Your task to perform on an android device: open chrome and create a bookmark for the current page Image 0: 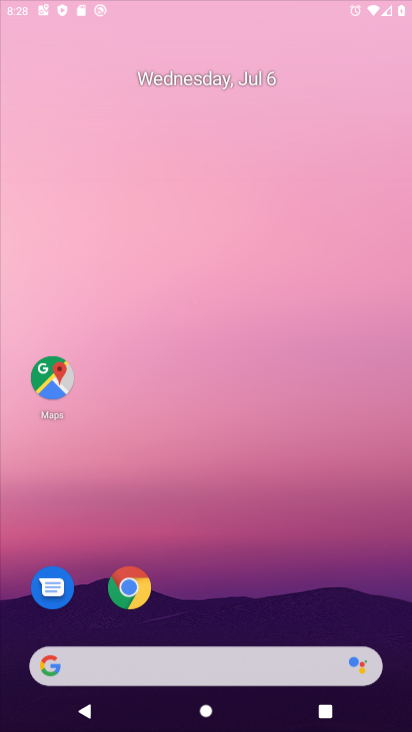
Step 0: click (272, 162)
Your task to perform on an android device: open chrome and create a bookmark for the current page Image 1: 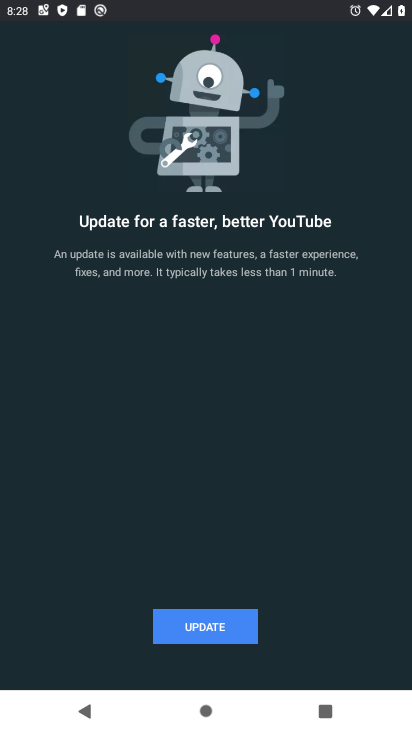
Step 1: press home button
Your task to perform on an android device: open chrome and create a bookmark for the current page Image 2: 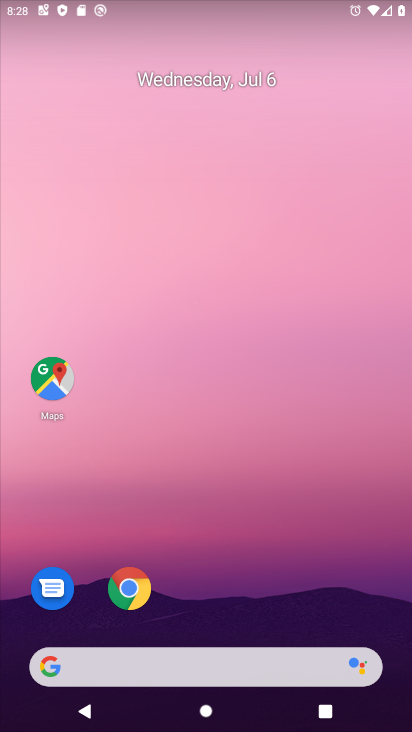
Step 2: drag from (189, 633) to (210, 131)
Your task to perform on an android device: open chrome and create a bookmark for the current page Image 3: 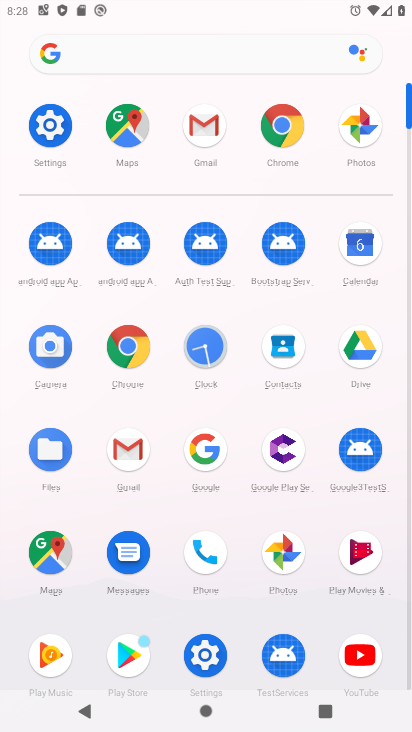
Step 3: click (119, 337)
Your task to perform on an android device: open chrome and create a bookmark for the current page Image 4: 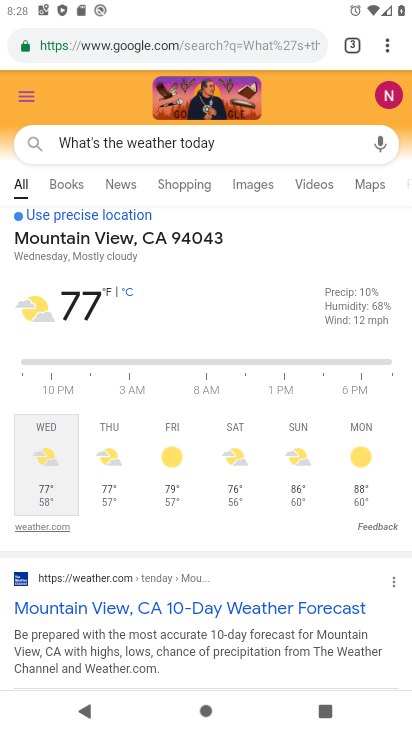
Step 4: click (386, 43)
Your task to perform on an android device: open chrome and create a bookmark for the current page Image 5: 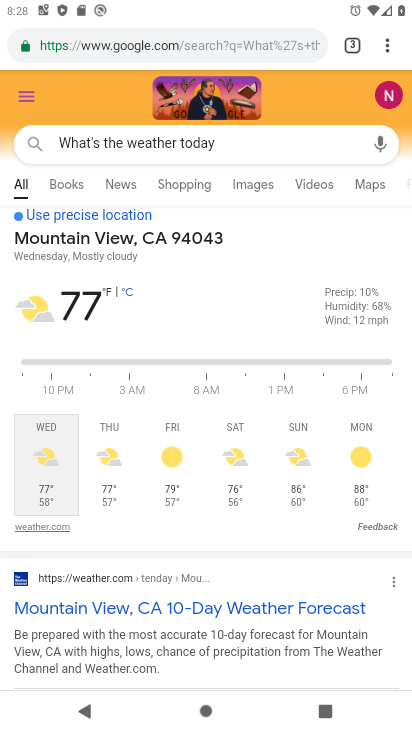
Step 5: click (378, 44)
Your task to perform on an android device: open chrome and create a bookmark for the current page Image 6: 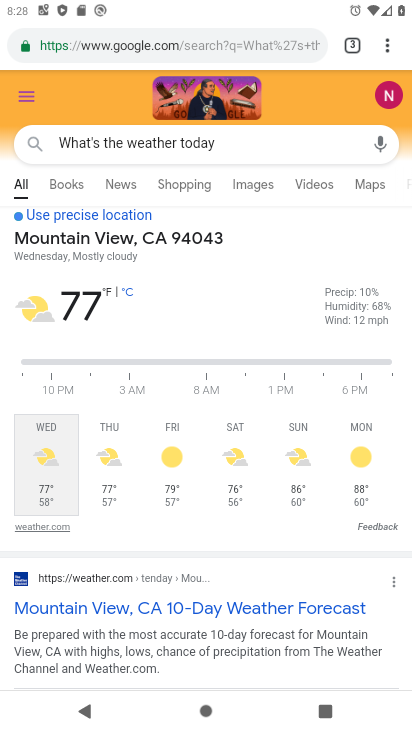
Step 6: click (363, 44)
Your task to perform on an android device: open chrome and create a bookmark for the current page Image 7: 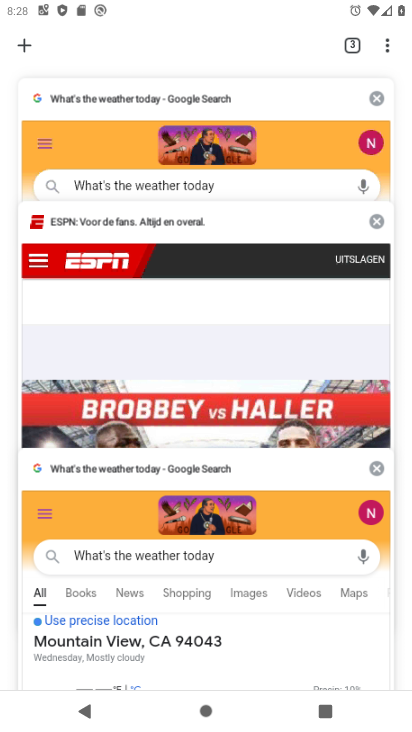
Step 7: click (279, 497)
Your task to perform on an android device: open chrome and create a bookmark for the current page Image 8: 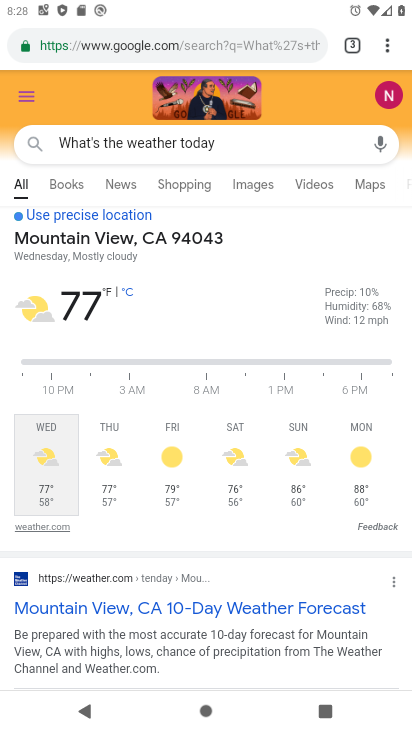
Step 8: click (390, 42)
Your task to perform on an android device: open chrome and create a bookmark for the current page Image 9: 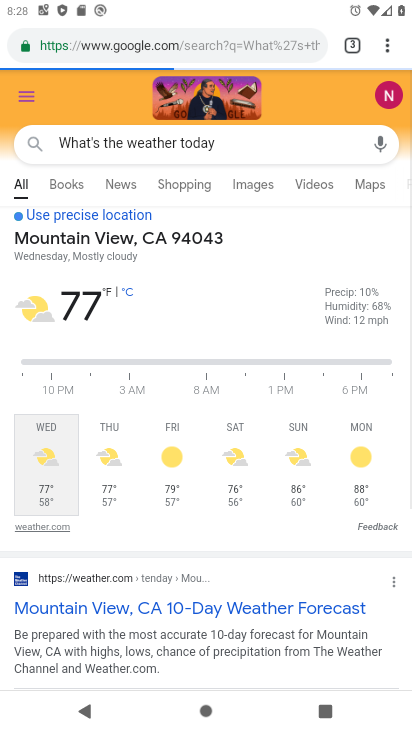
Step 9: click (390, 42)
Your task to perform on an android device: open chrome and create a bookmark for the current page Image 10: 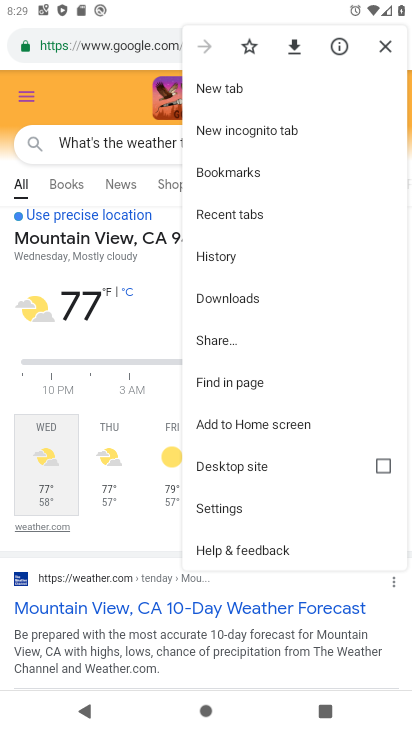
Step 10: click (245, 52)
Your task to perform on an android device: open chrome and create a bookmark for the current page Image 11: 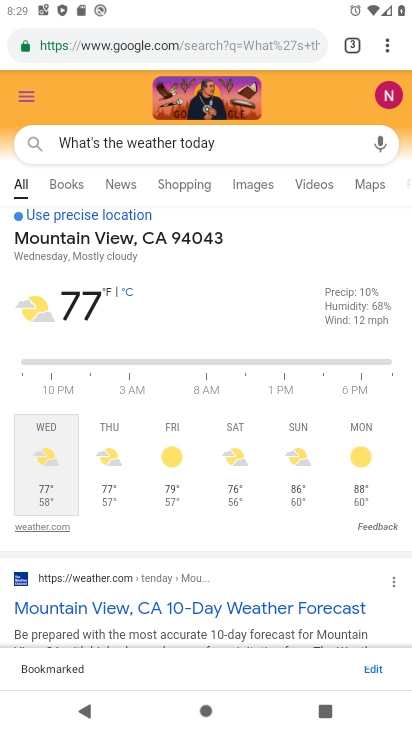
Step 11: task complete